Your task to perform on an android device: find snoozed emails in the gmail app Image 0: 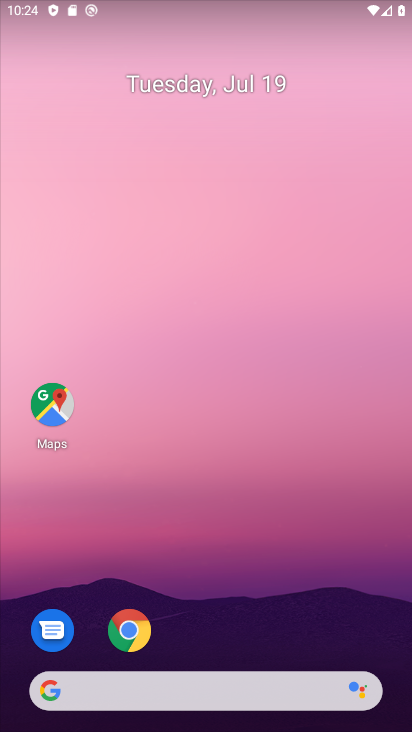
Step 0: drag from (175, 597) to (209, 220)
Your task to perform on an android device: find snoozed emails in the gmail app Image 1: 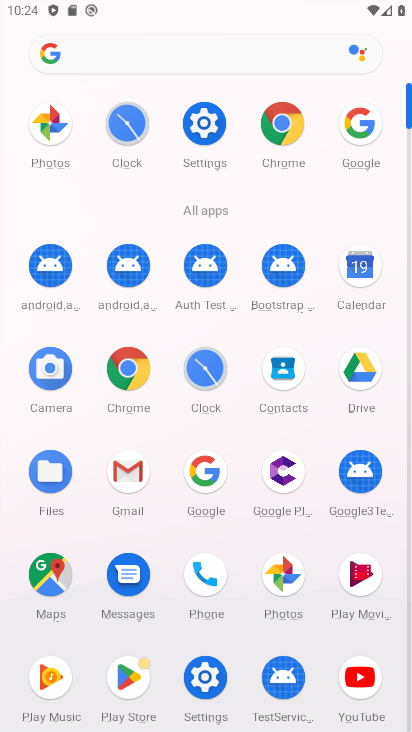
Step 1: click (127, 472)
Your task to perform on an android device: find snoozed emails in the gmail app Image 2: 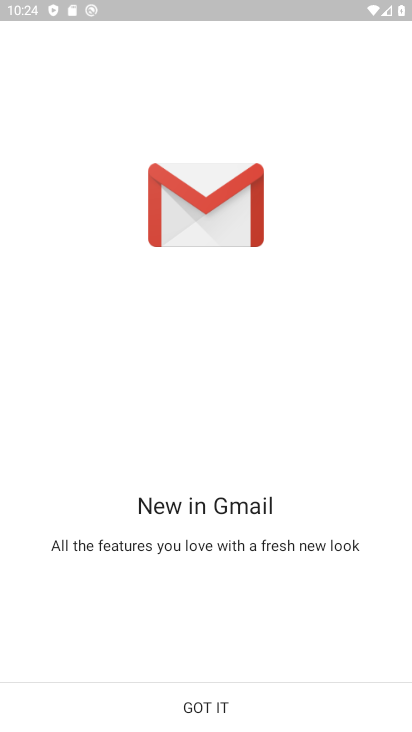
Step 2: click (196, 708)
Your task to perform on an android device: find snoozed emails in the gmail app Image 3: 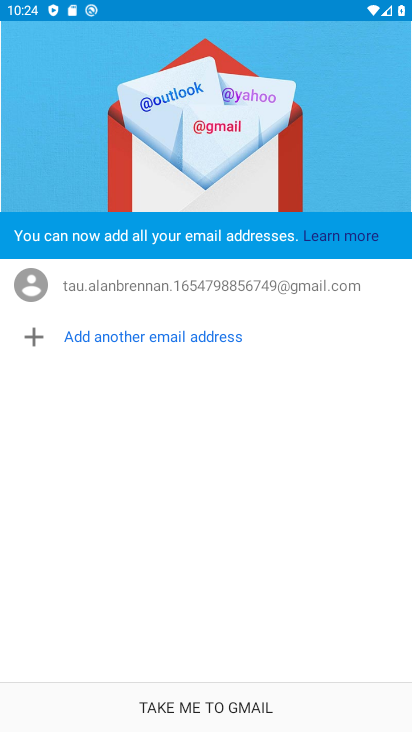
Step 3: click (195, 706)
Your task to perform on an android device: find snoozed emails in the gmail app Image 4: 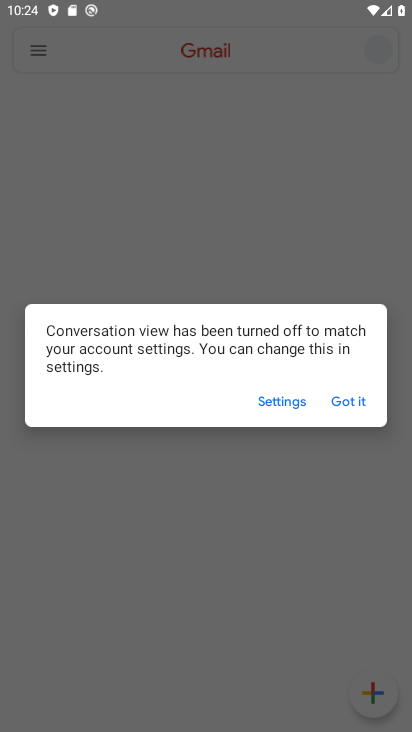
Step 4: click (339, 406)
Your task to perform on an android device: find snoozed emails in the gmail app Image 5: 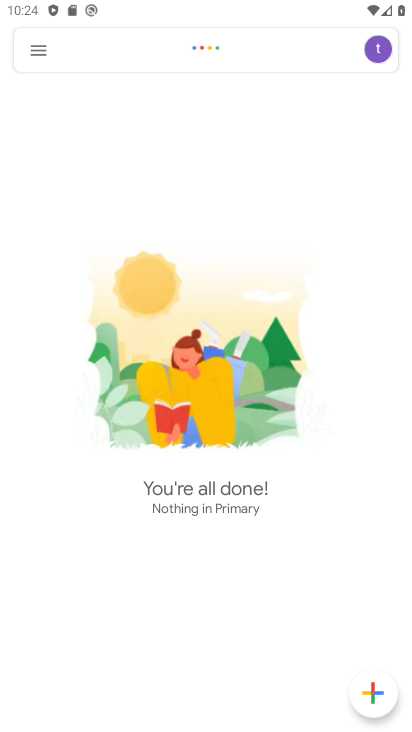
Step 5: click (32, 47)
Your task to perform on an android device: find snoozed emails in the gmail app Image 6: 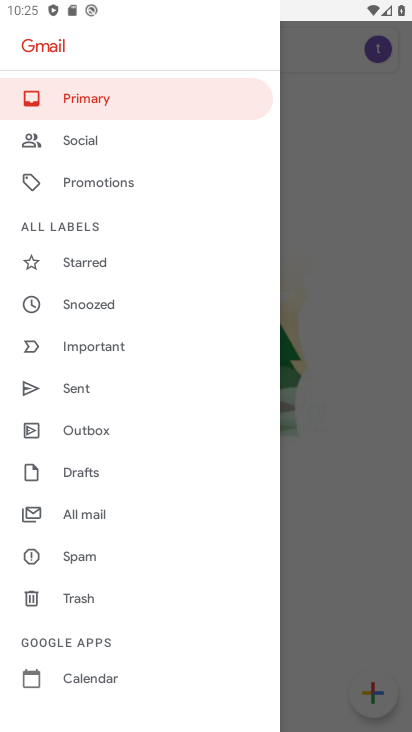
Step 6: click (96, 307)
Your task to perform on an android device: find snoozed emails in the gmail app Image 7: 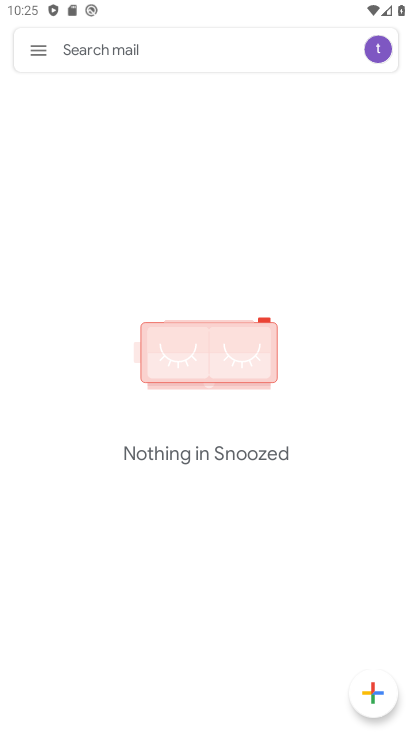
Step 7: task complete